Your task to perform on an android device: Do I have any events this weekend? Image 0: 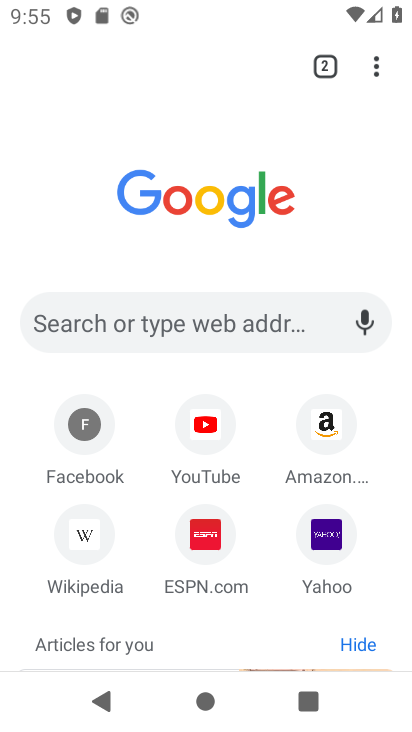
Step 0: press home button
Your task to perform on an android device: Do I have any events this weekend? Image 1: 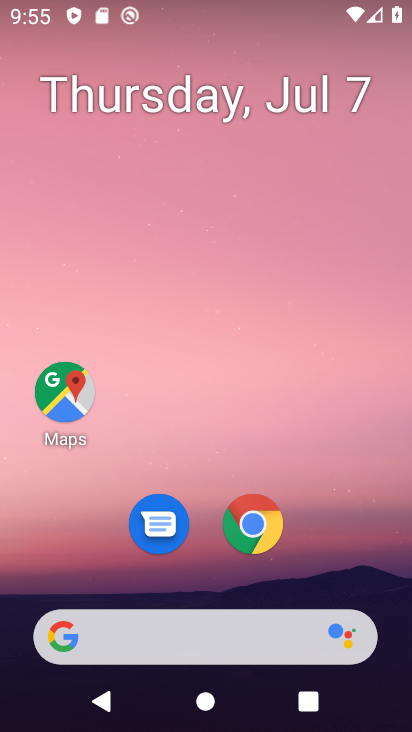
Step 1: drag from (302, 539) to (303, 24)
Your task to perform on an android device: Do I have any events this weekend? Image 2: 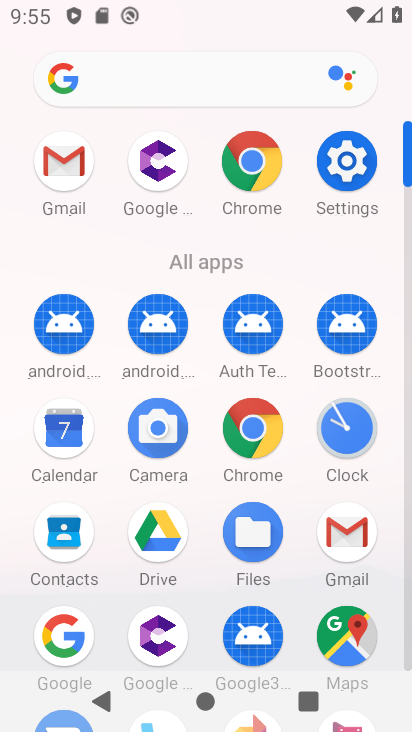
Step 2: click (52, 428)
Your task to perform on an android device: Do I have any events this weekend? Image 3: 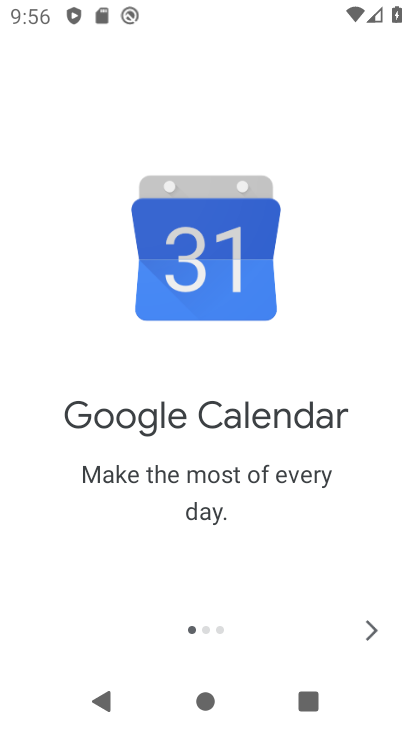
Step 3: click (370, 627)
Your task to perform on an android device: Do I have any events this weekend? Image 4: 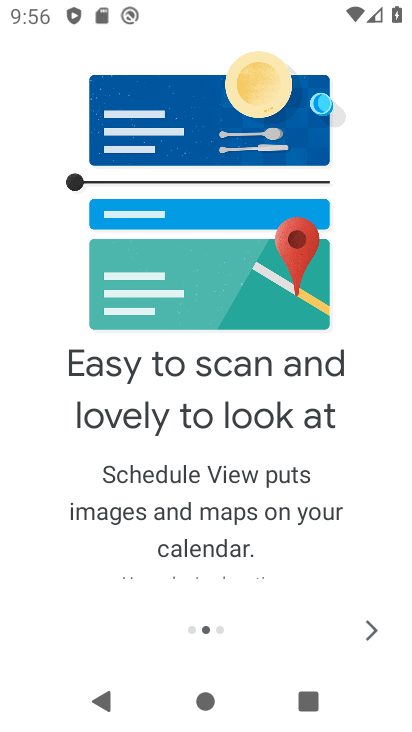
Step 4: click (370, 627)
Your task to perform on an android device: Do I have any events this weekend? Image 5: 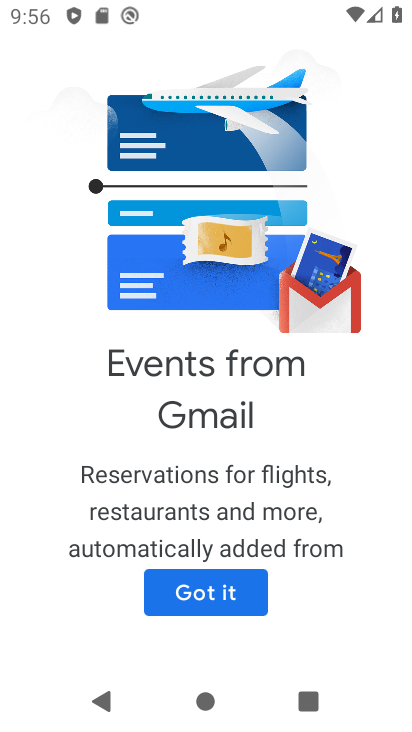
Step 5: click (250, 596)
Your task to perform on an android device: Do I have any events this weekend? Image 6: 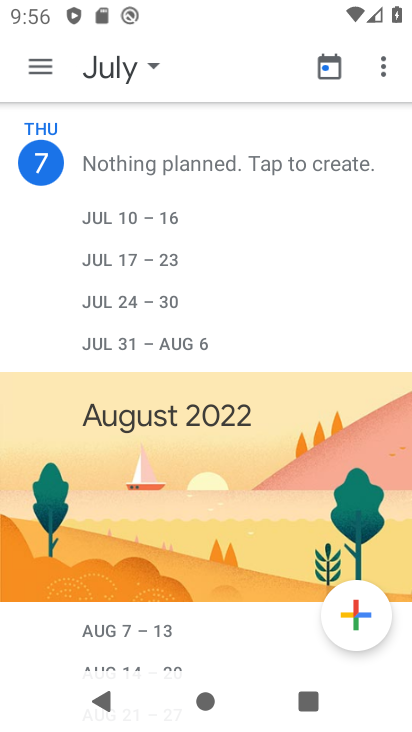
Step 6: click (46, 62)
Your task to perform on an android device: Do I have any events this weekend? Image 7: 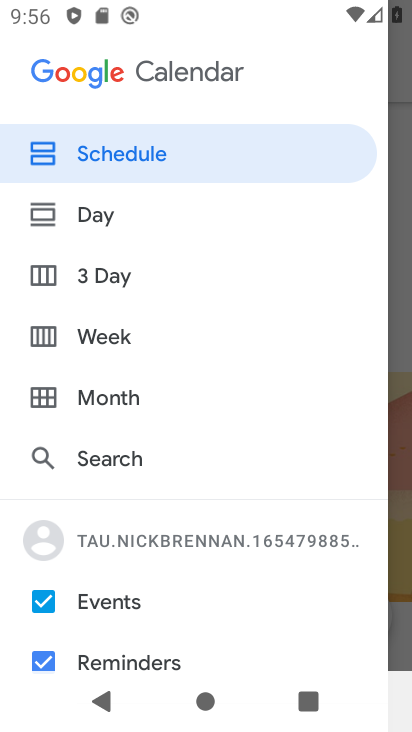
Step 7: click (43, 324)
Your task to perform on an android device: Do I have any events this weekend? Image 8: 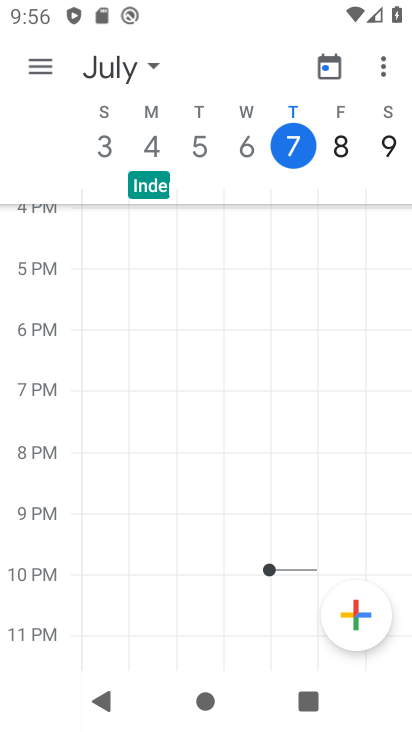
Step 8: click (385, 146)
Your task to perform on an android device: Do I have any events this weekend? Image 9: 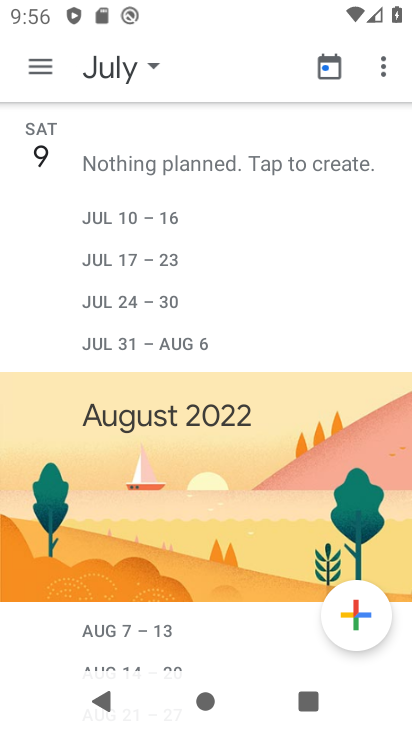
Step 9: task complete